Your task to perform on an android device: Go to Android settings Image 0: 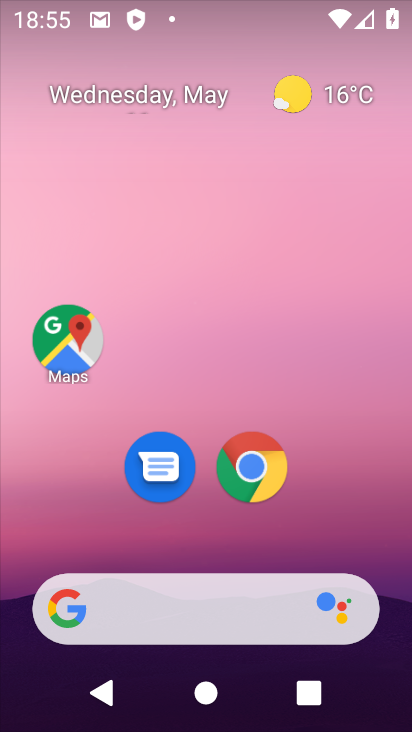
Step 0: drag from (325, 492) to (164, 17)
Your task to perform on an android device: Go to Android settings Image 1: 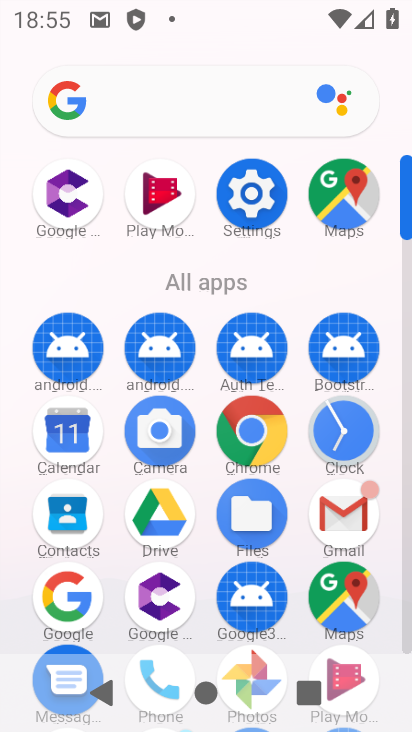
Step 1: click (243, 198)
Your task to perform on an android device: Go to Android settings Image 2: 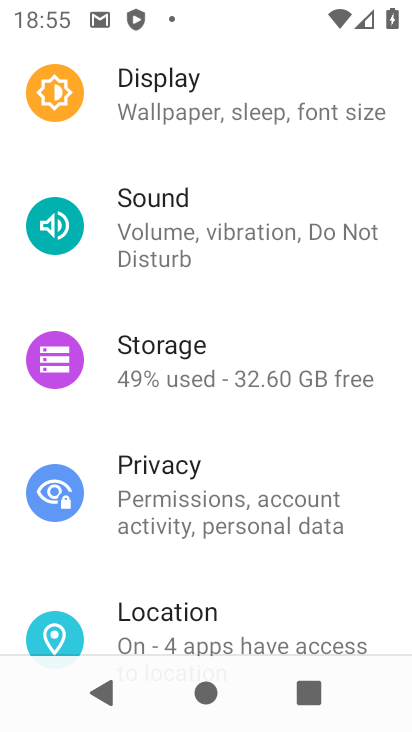
Step 2: task complete